Your task to perform on an android device: turn pop-ups off in chrome Image 0: 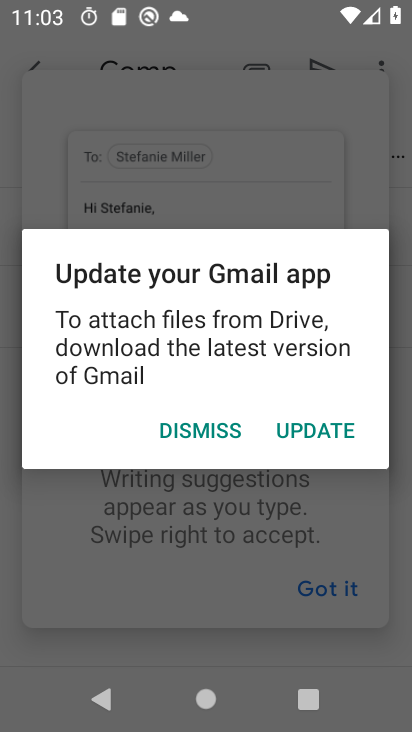
Step 0: press home button
Your task to perform on an android device: turn pop-ups off in chrome Image 1: 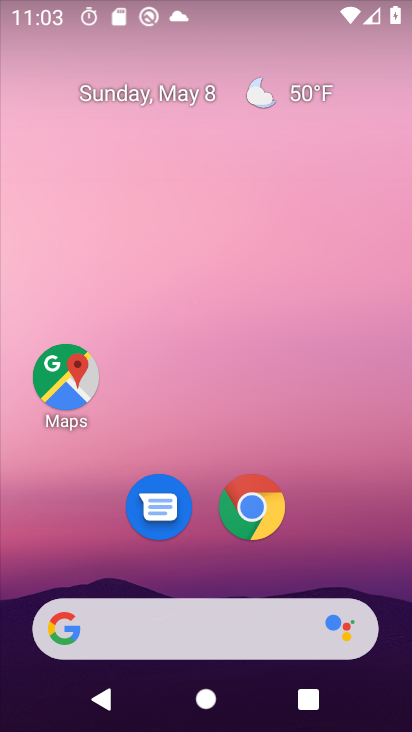
Step 1: click (250, 502)
Your task to perform on an android device: turn pop-ups off in chrome Image 2: 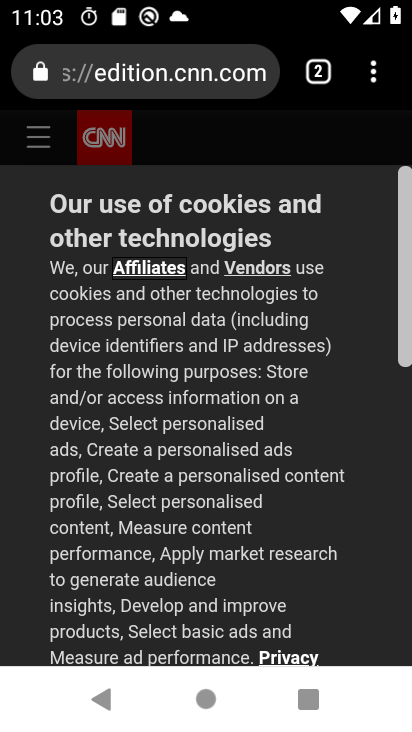
Step 2: click (375, 82)
Your task to perform on an android device: turn pop-ups off in chrome Image 3: 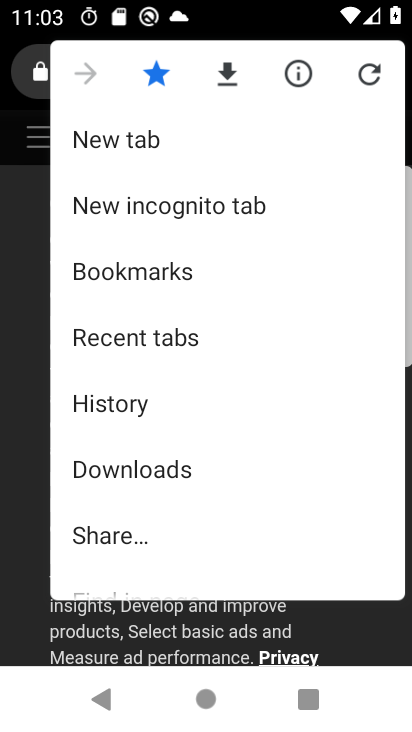
Step 3: drag from (152, 534) to (146, 194)
Your task to perform on an android device: turn pop-ups off in chrome Image 4: 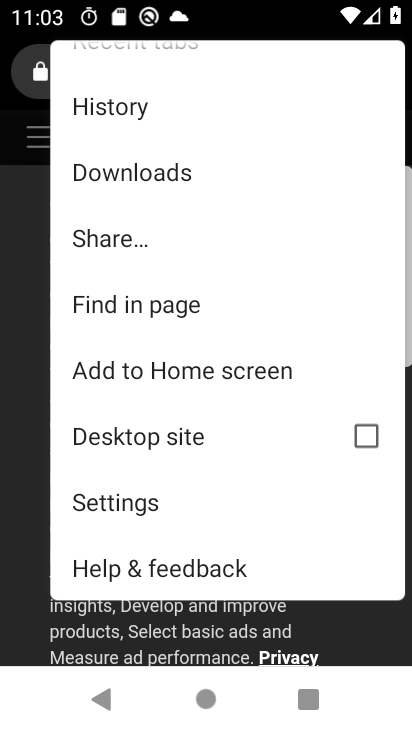
Step 4: click (127, 502)
Your task to perform on an android device: turn pop-ups off in chrome Image 5: 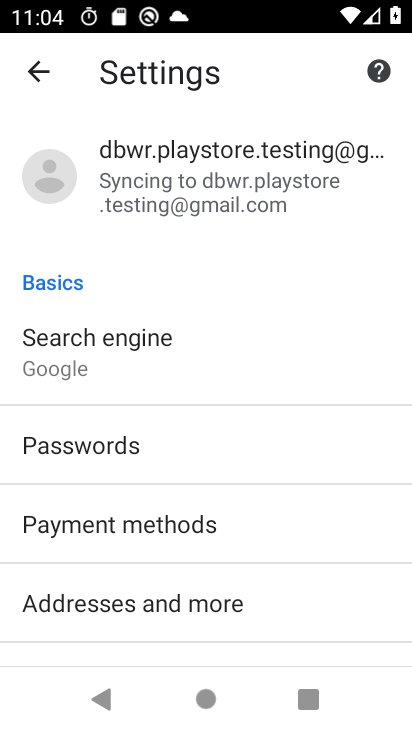
Step 5: drag from (128, 631) to (129, 395)
Your task to perform on an android device: turn pop-ups off in chrome Image 6: 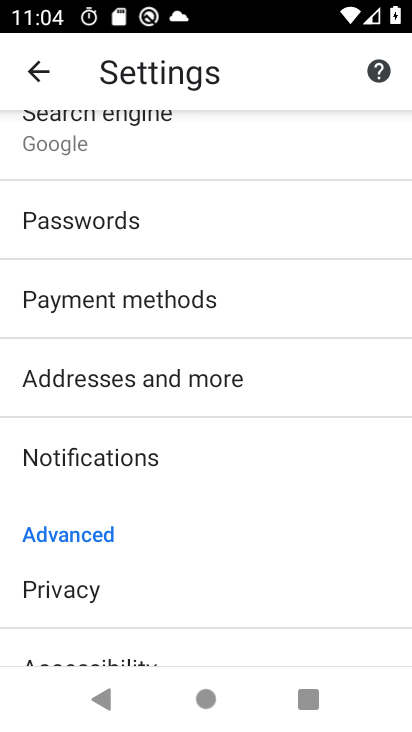
Step 6: drag from (164, 635) to (172, 396)
Your task to perform on an android device: turn pop-ups off in chrome Image 7: 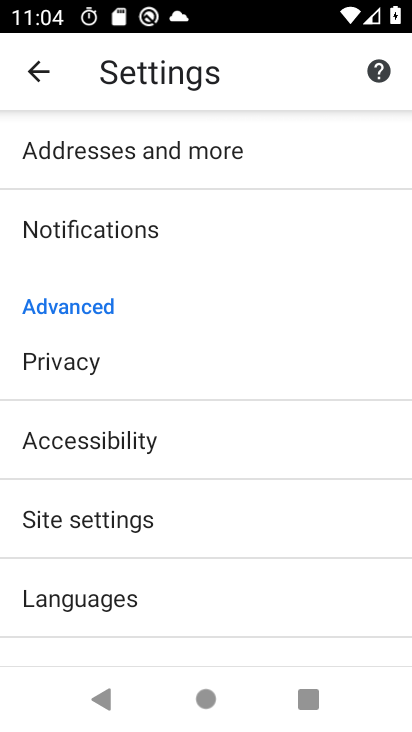
Step 7: click (126, 522)
Your task to perform on an android device: turn pop-ups off in chrome Image 8: 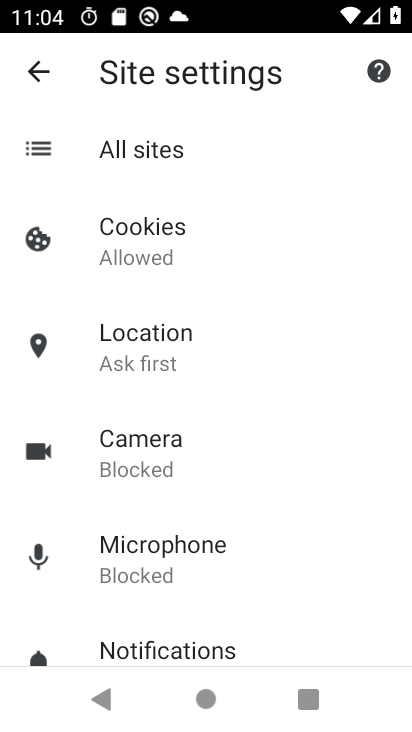
Step 8: drag from (216, 621) to (216, 217)
Your task to perform on an android device: turn pop-ups off in chrome Image 9: 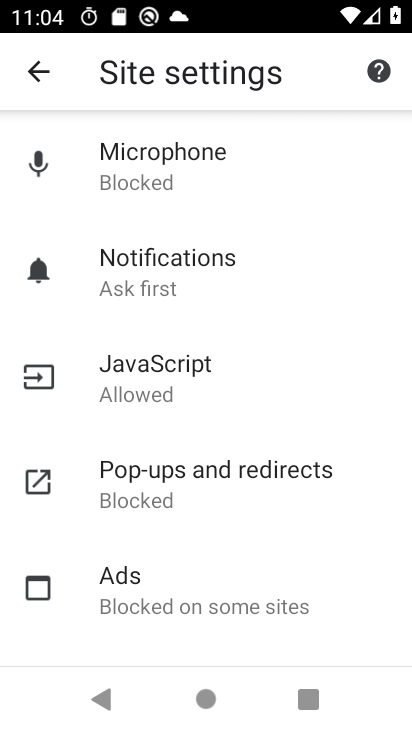
Step 9: click (174, 476)
Your task to perform on an android device: turn pop-ups off in chrome Image 10: 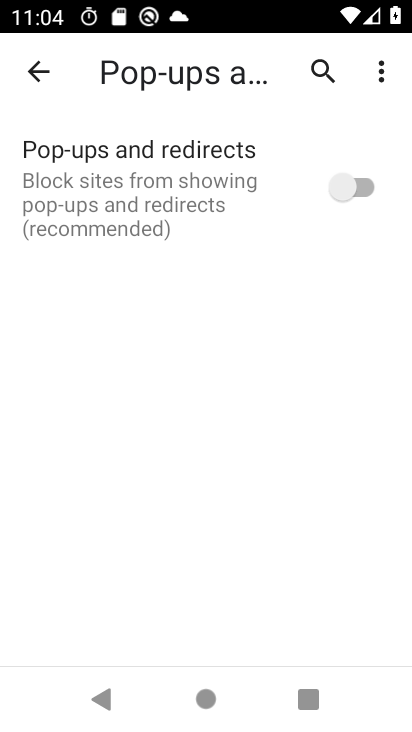
Step 10: task complete